Your task to perform on an android device: set the stopwatch Image 0: 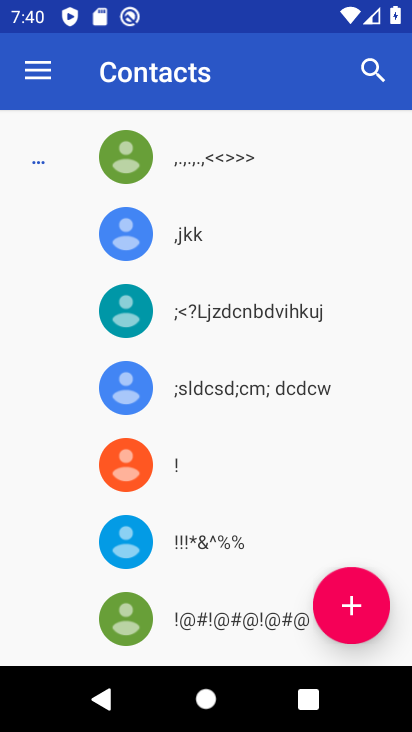
Step 0: press home button
Your task to perform on an android device: set the stopwatch Image 1: 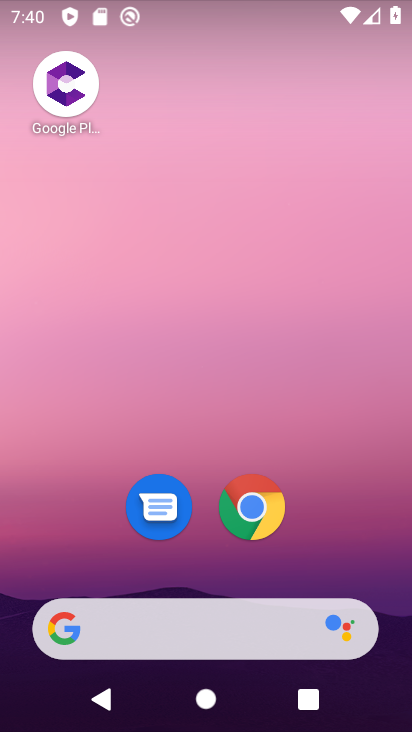
Step 1: drag from (359, 444) to (354, 49)
Your task to perform on an android device: set the stopwatch Image 2: 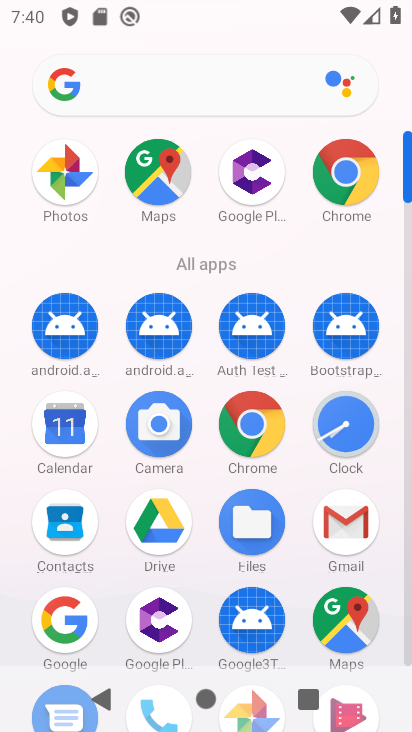
Step 2: click (335, 432)
Your task to perform on an android device: set the stopwatch Image 3: 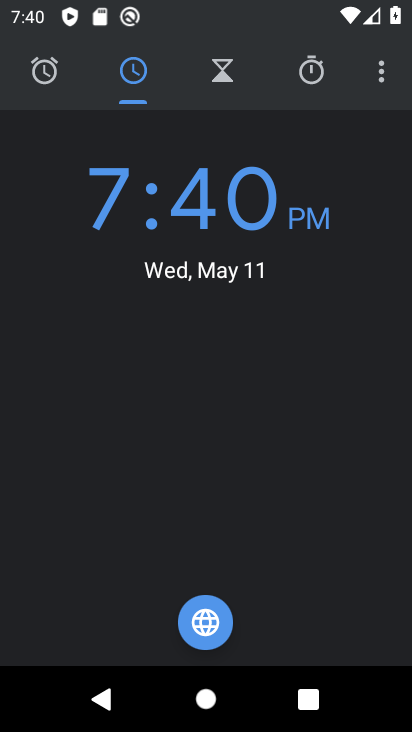
Step 3: click (308, 84)
Your task to perform on an android device: set the stopwatch Image 4: 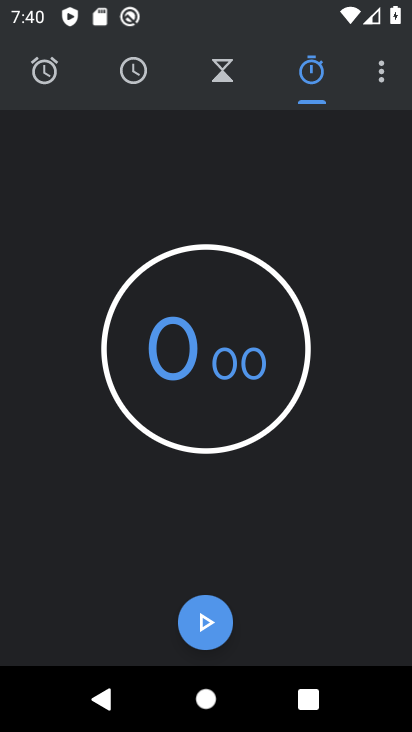
Step 4: click (202, 610)
Your task to perform on an android device: set the stopwatch Image 5: 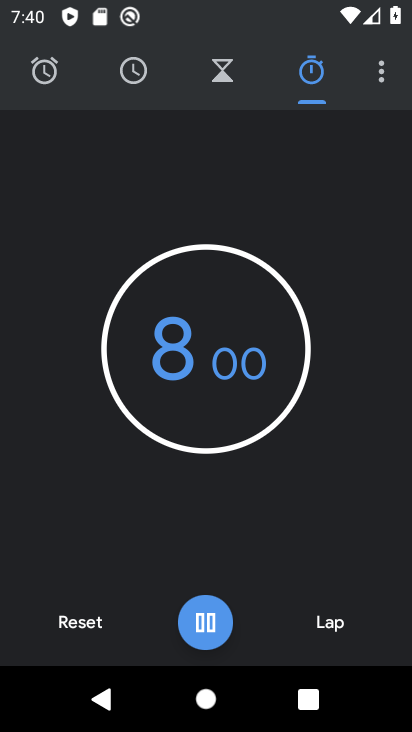
Step 5: task complete